Your task to perform on an android device: Go to Reddit.com Image 0: 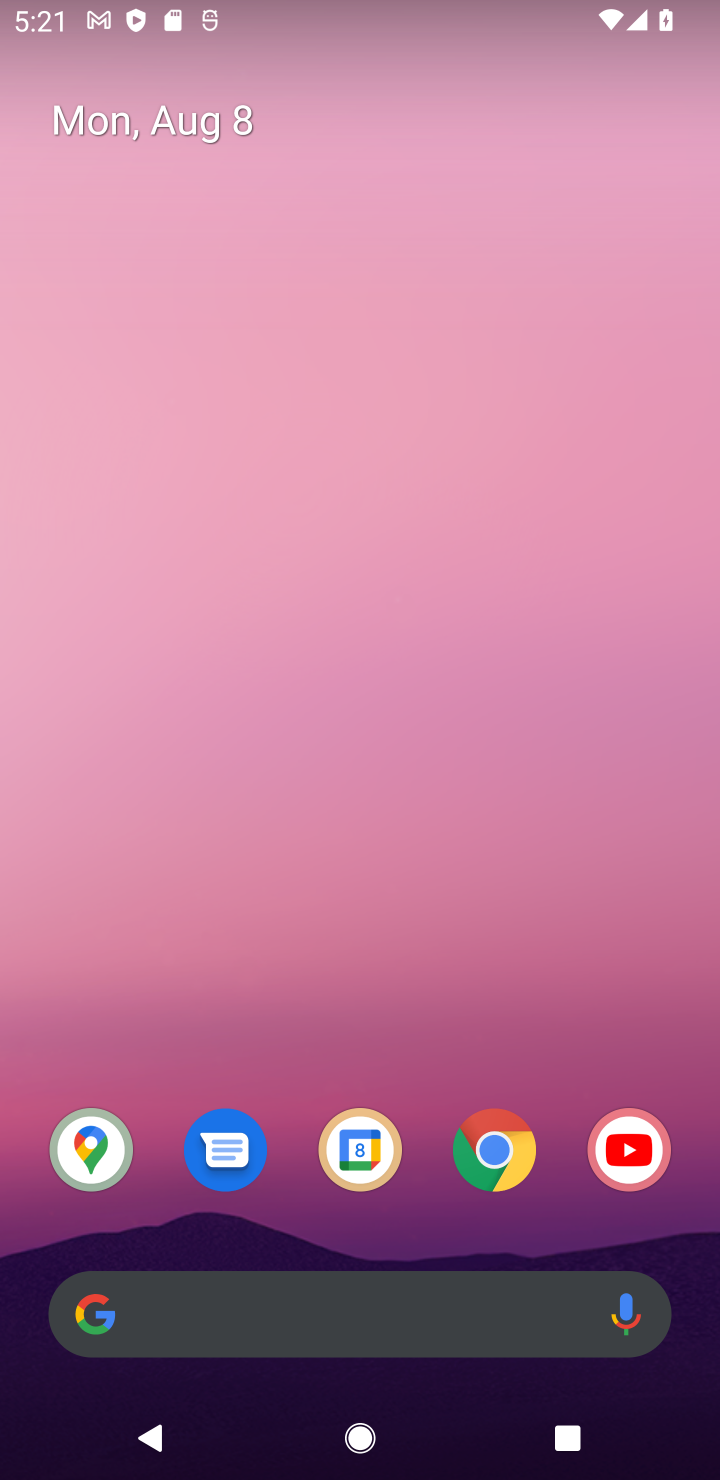
Step 0: click (462, 1170)
Your task to perform on an android device: Go to Reddit.com Image 1: 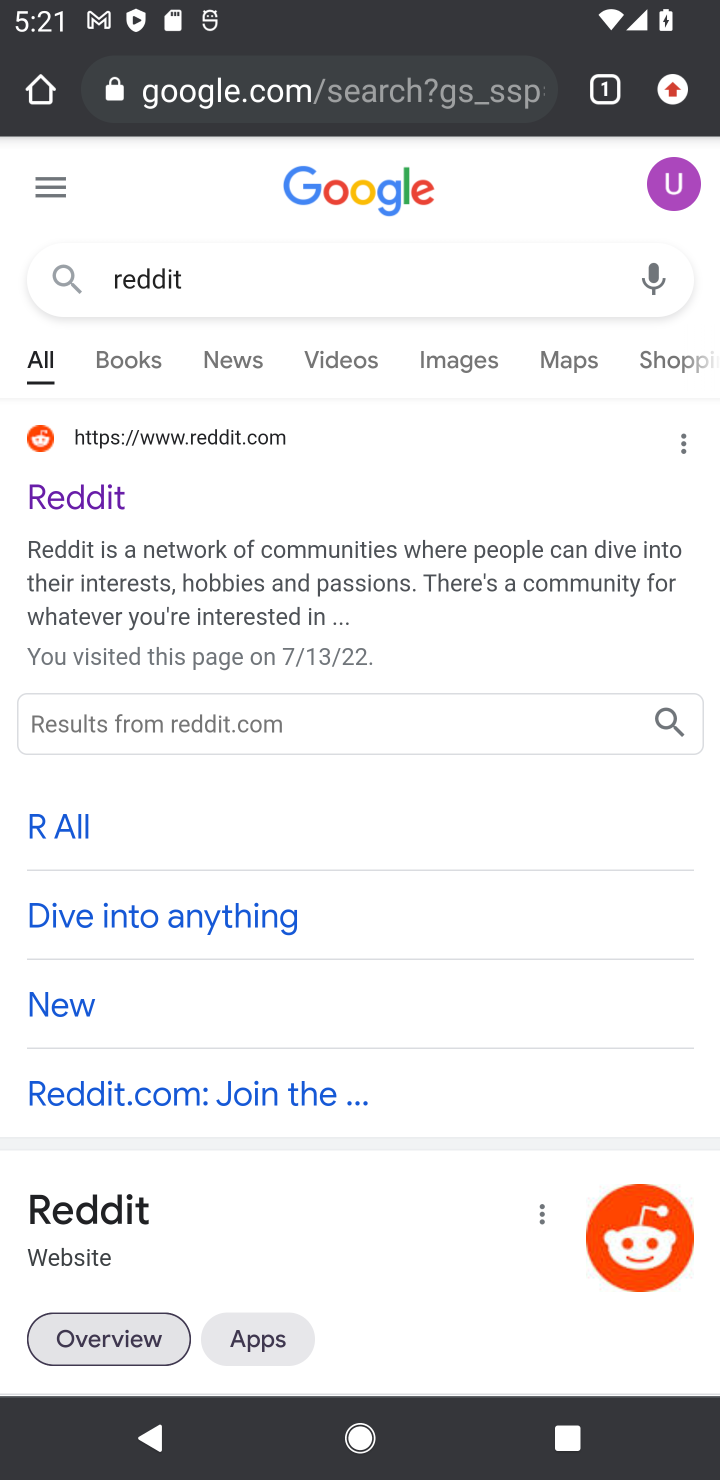
Step 1: click (46, 551)
Your task to perform on an android device: Go to Reddit.com Image 2: 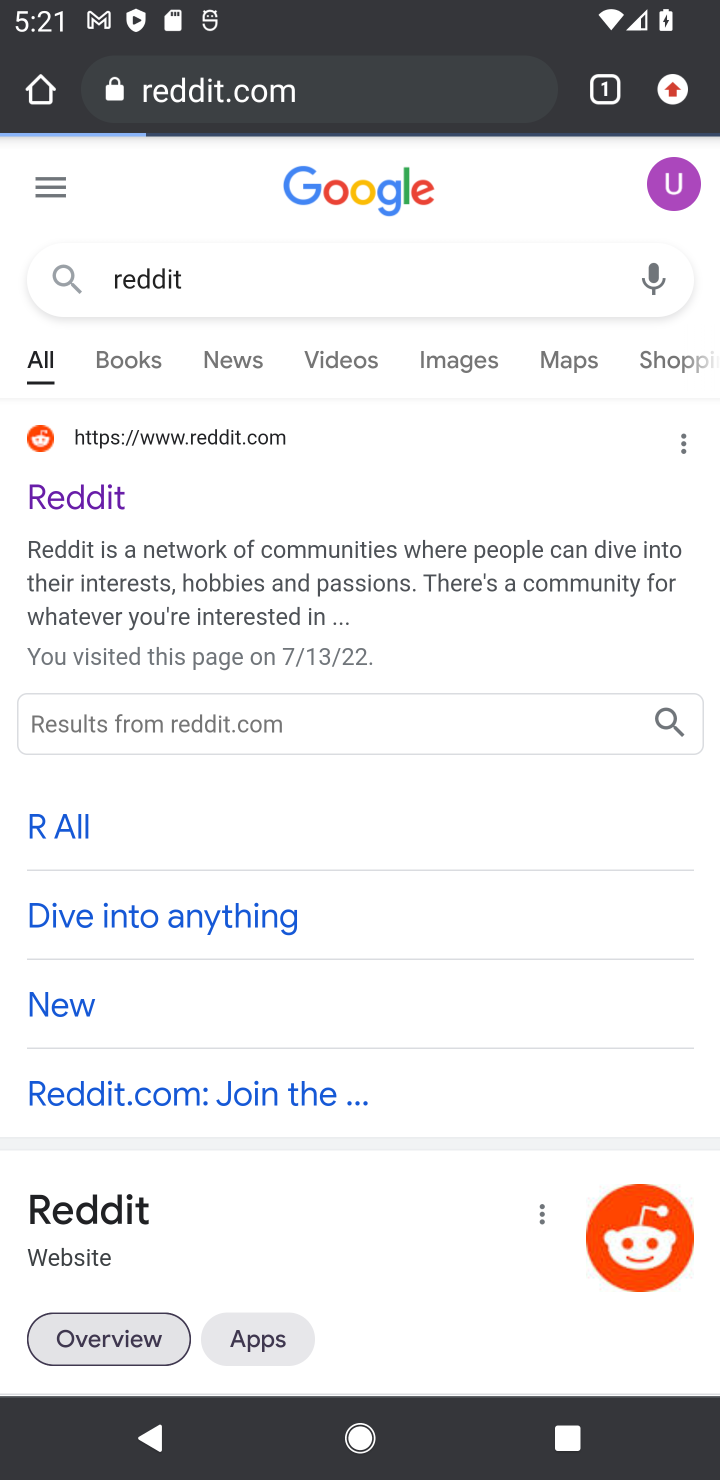
Step 2: task complete